Your task to perform on an android device: Open calendar and show me the second week of next month Image 0: 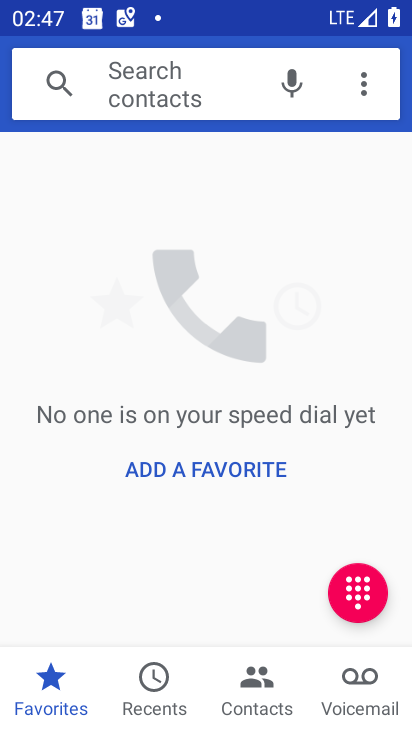
Step 0: press back button
Your task to perform on an android device: Open calendar and show me the second week of next month Image 1: 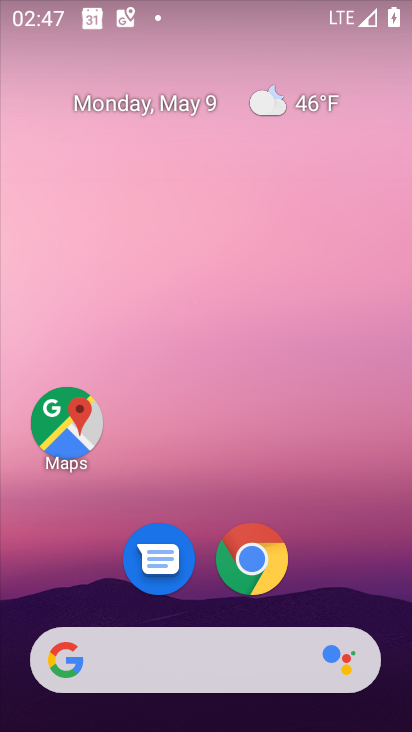
Step 1: drag from (215, 516) to (273, 15)
Your task to perform on an android device: Open calendar and show me the second week of next month Image 2: 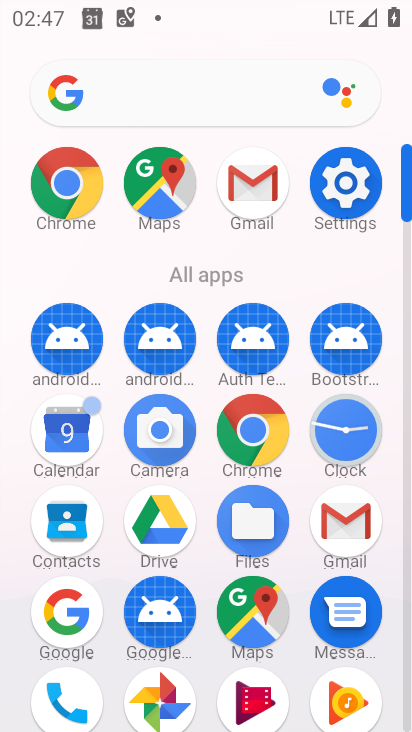
Step 2: click (66, 431)
Your task to perform on an android device: Open calendar and show me the second week of next month Image 3: 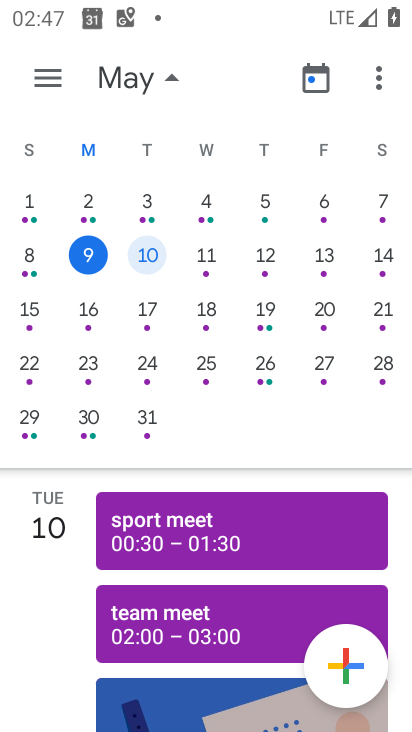
Step 3: drag from (343, 281) to (14, 307)
Your task to perform on an android device: Open calendar and show me the second week of next month Image 4: 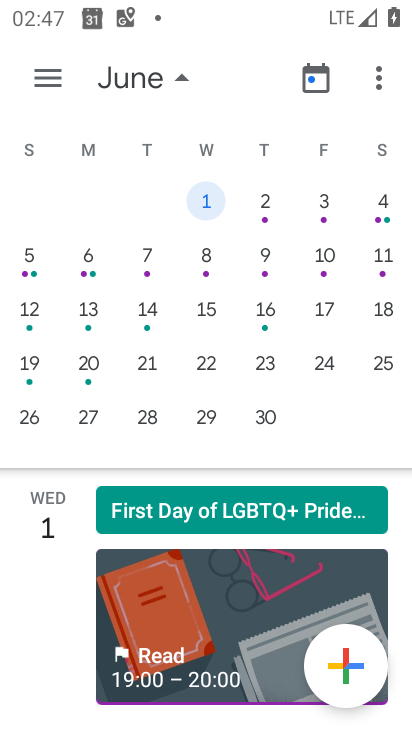
Step 4: click (91, 308)
Your task to perform on an android device: Open calendar and show me the second week of next month Image 5: 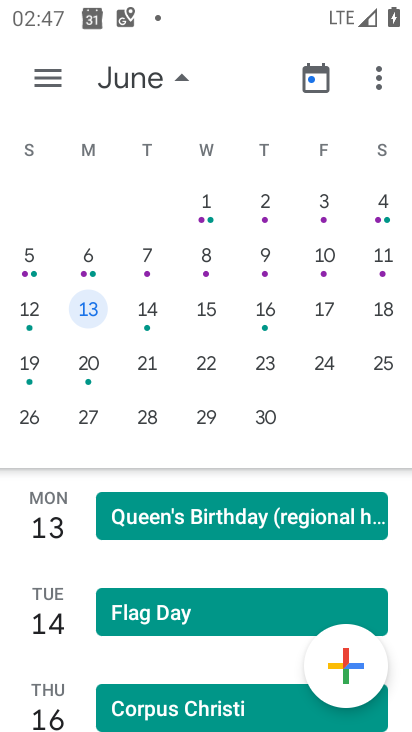
Step 5: task complete